Your task to perform on an android device: Find coffee shops on Maps Image 0: 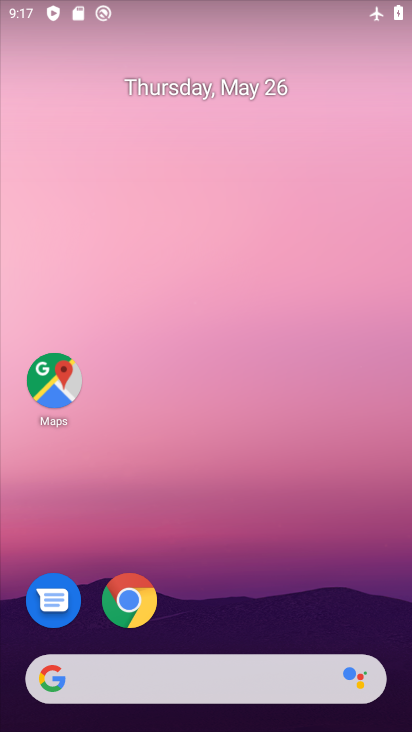
Step 0: click (45, 374)
Your task to perform on an android device: Find coffee shops on Maps Image 1: 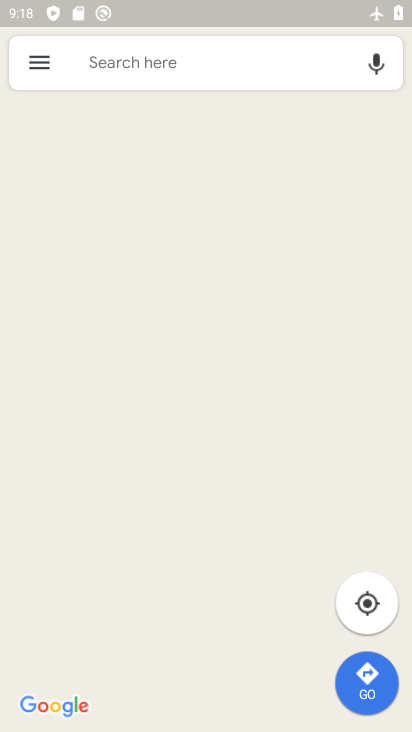
Step 1: click (208, 68)
Your task to perform on an android device: Find coffee shops on Maps Image 2: 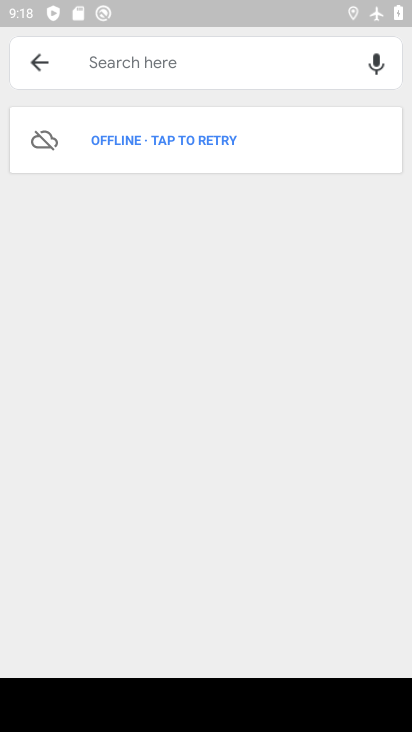
Step 2: type "coffee shop"
Your task to perform on an android device: Find coffee shops on Maps Image 3: 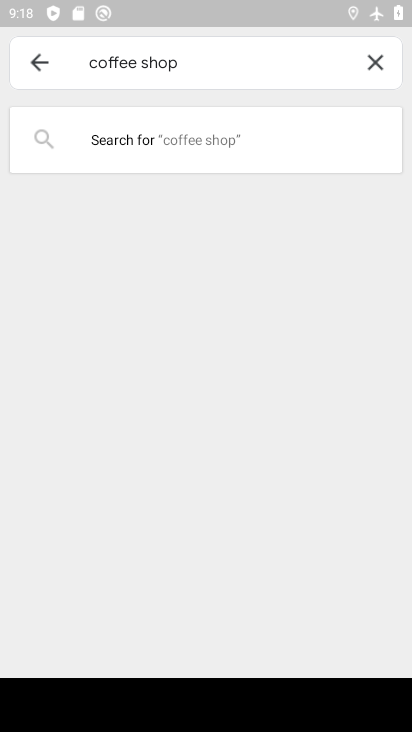
Step 3: click (188, 145)
Your task to perform on an android device: Find coffee shops on Maps Image 4: 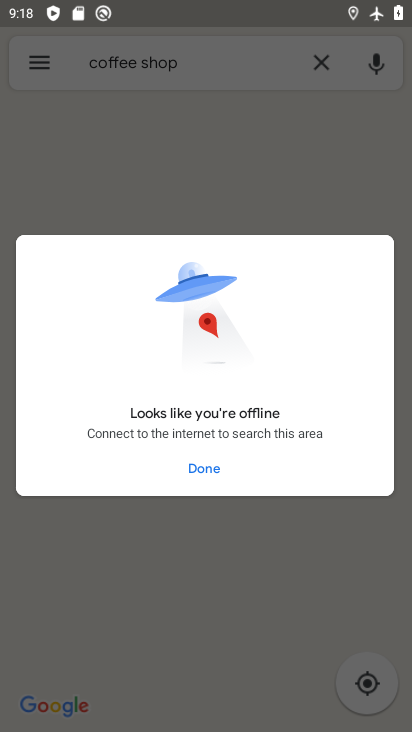
Step 4: task complete